Your task to perform on an android device: toggle improve location accuracy Image 0: 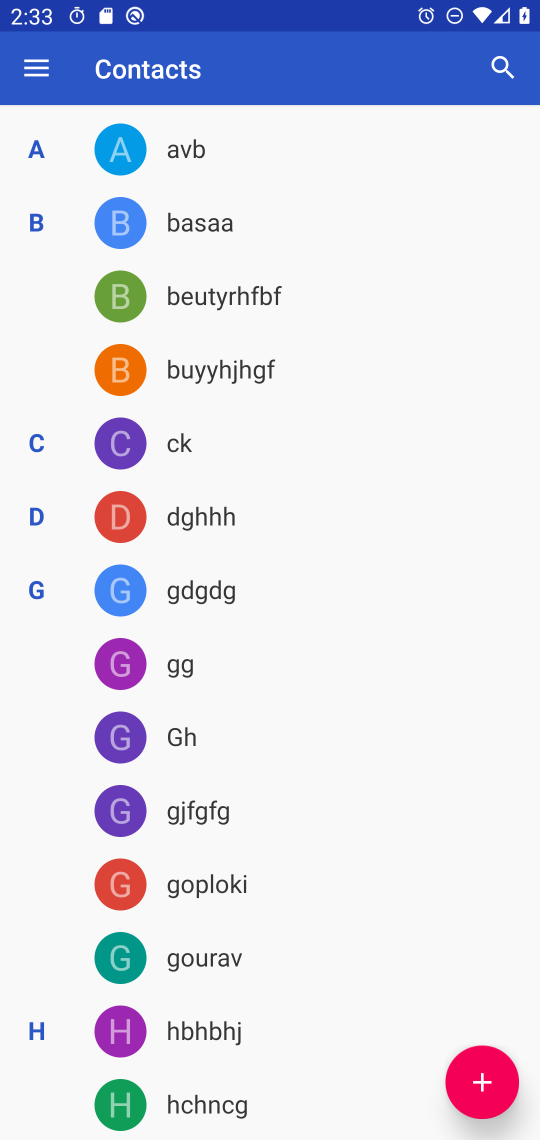
Step 0: press home button
Your task to perform on an android device: toggle improve location accuracy Image 1: 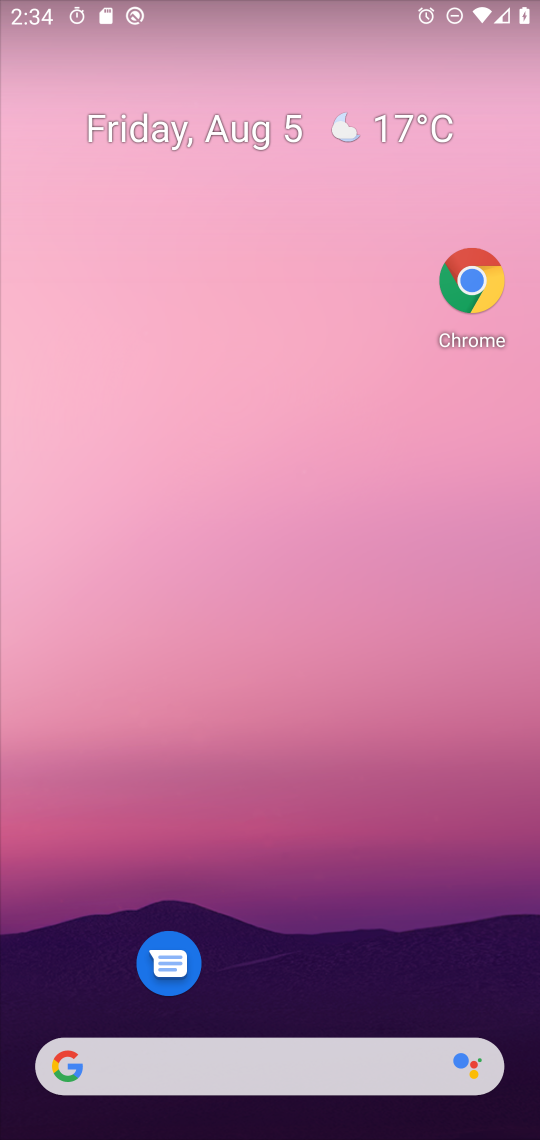
Step 1: drag from (358, 725) to (294, 0)
Your task to perform on an android device: toggle improve location accuracy Image 2: 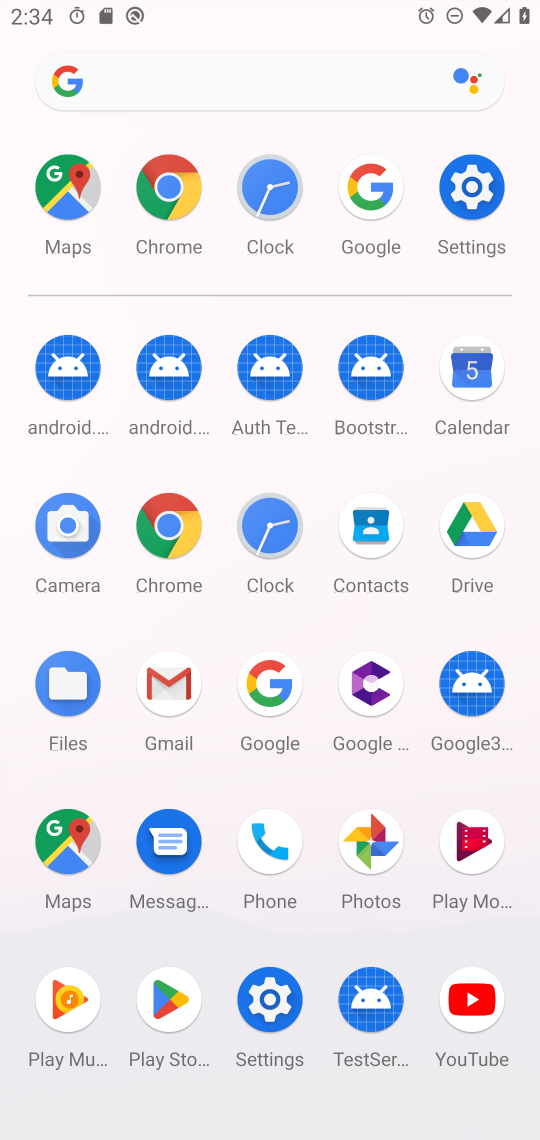
Step 2: click (476, 217)
Your task to perform on an android device: toggle improve location accuracy Image 3: 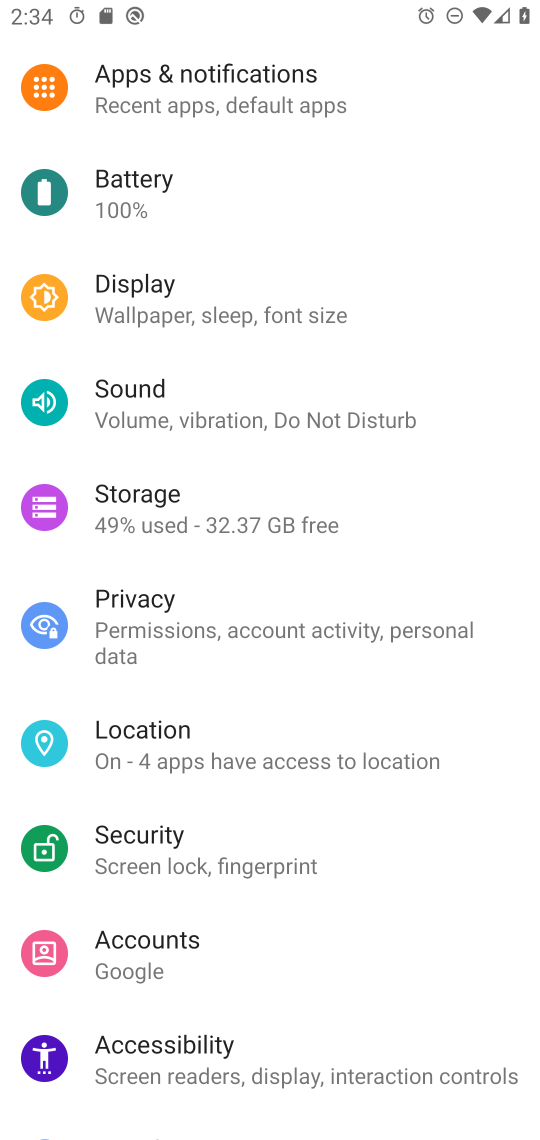
Step 3: click (125, 749)
Your task to perform on an android device: toggle improve location accuracy Image 4: 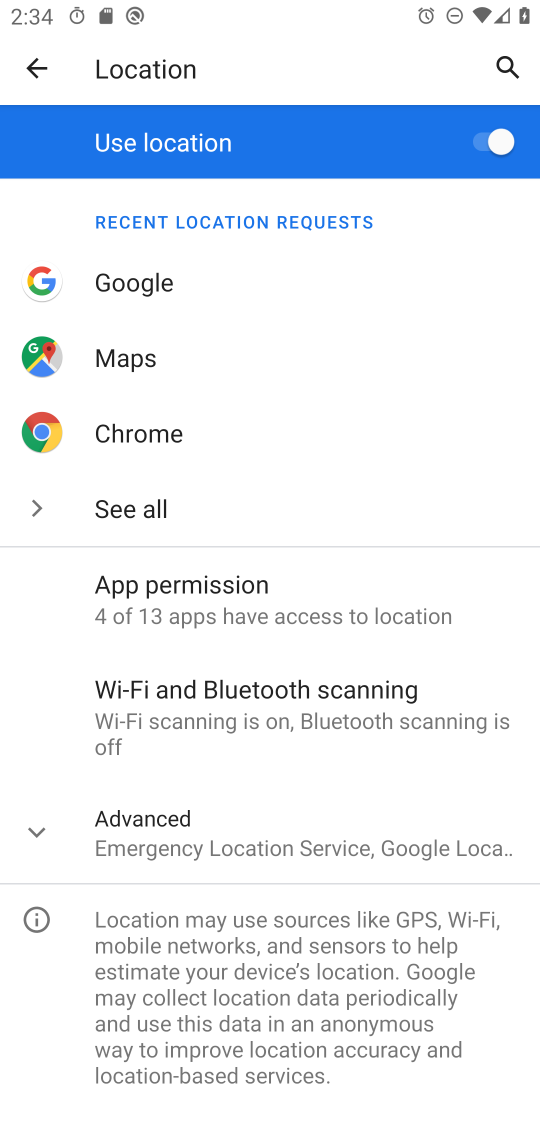
Step 4: click (215, 828)
Your task to perform on an android device: toggle improve location accuracy Image 5: 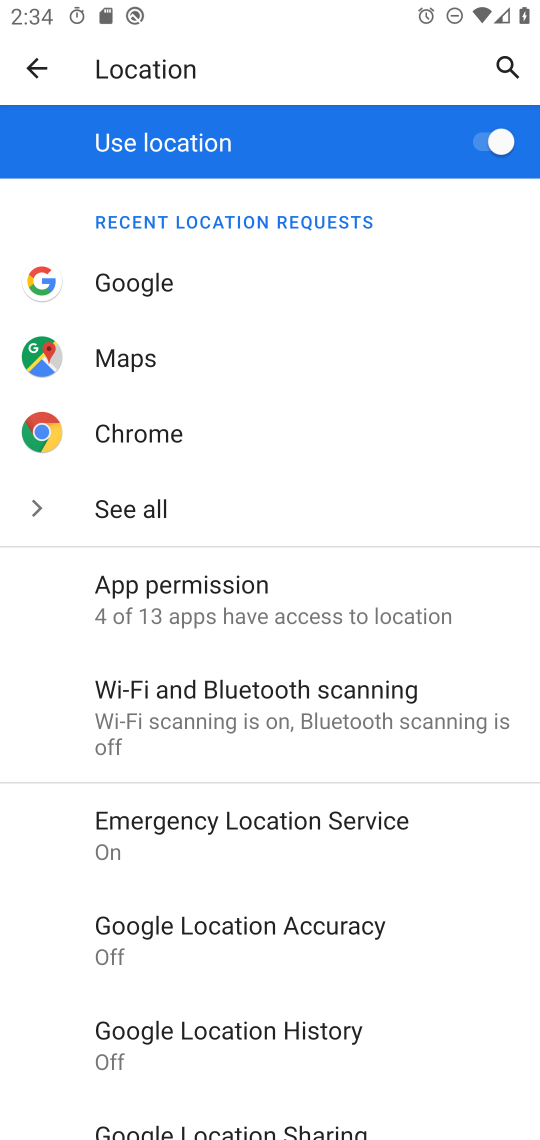
Step 5: click (303, 918)
Your task to perform on an android device: toggle improve location accuracy Image 6: 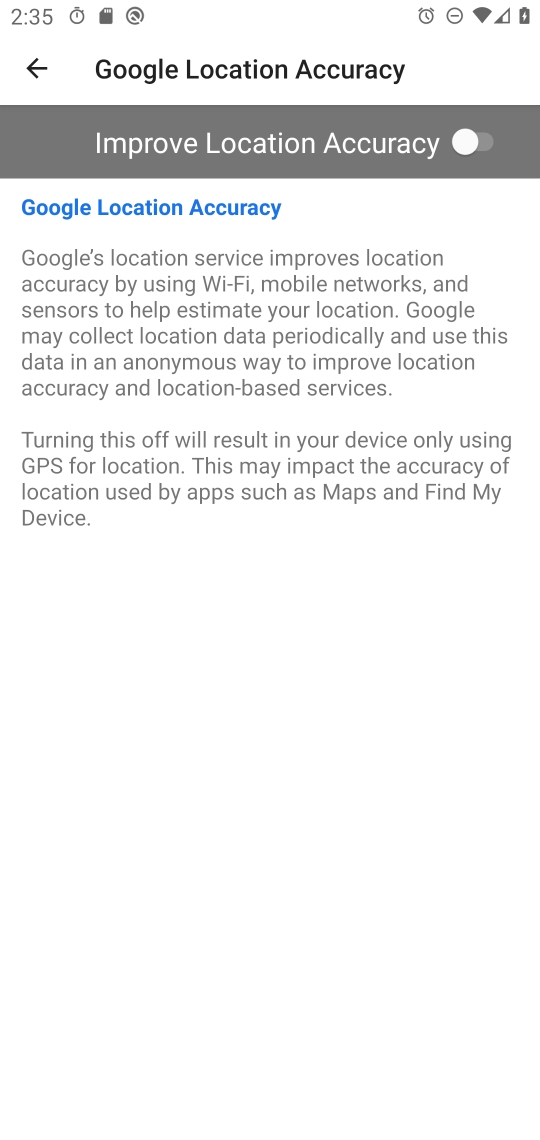
Step 6: click (456, 132)
Your task to perform on an android device: toggle improve location accuracy Image 7: 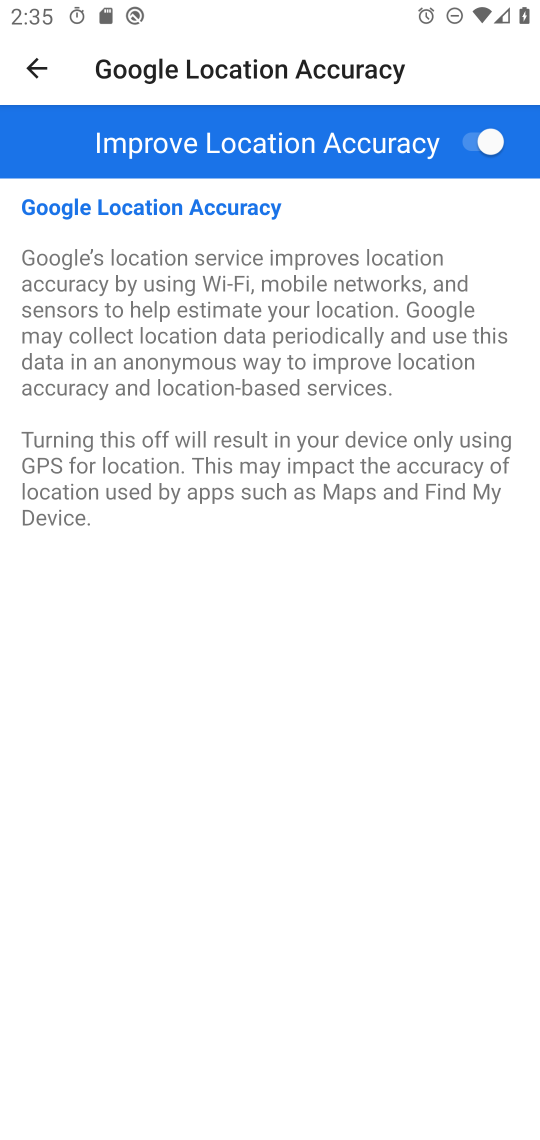
Step 7: task complete